Your task to perform on an android device: find snoozed emails in the gmail app Image 0: 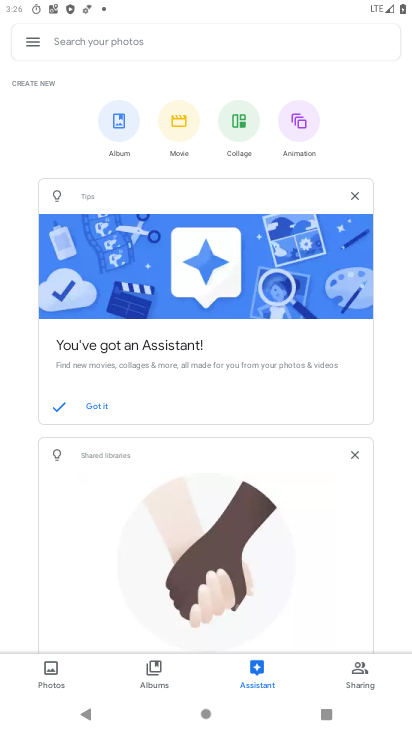
Step 0: press home button
Your task to perform on an android device: find snoozed emails in the gmail app Image 1: 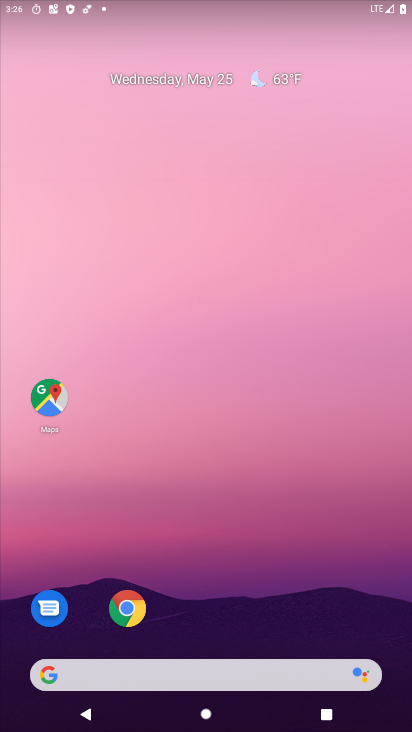
Step 1: drag from (202, 504) to (169, 137)
Your task to perform on an android device: find snoozed emails in the gmail app Image 2: 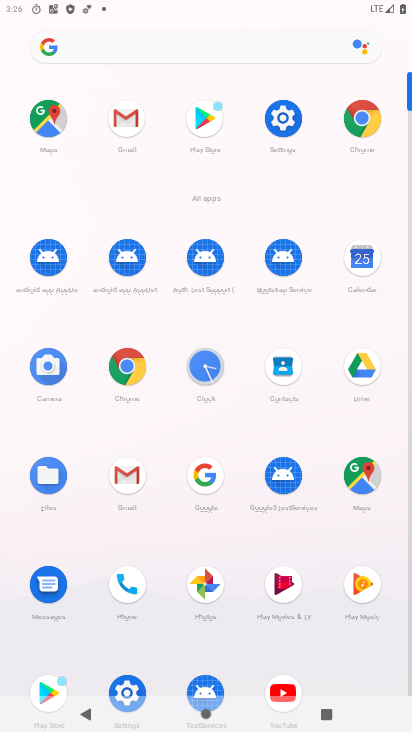
Step 2: click (135, 473)
Your task to perform on an android device: find snoozed emails in the gmail app Image 3: 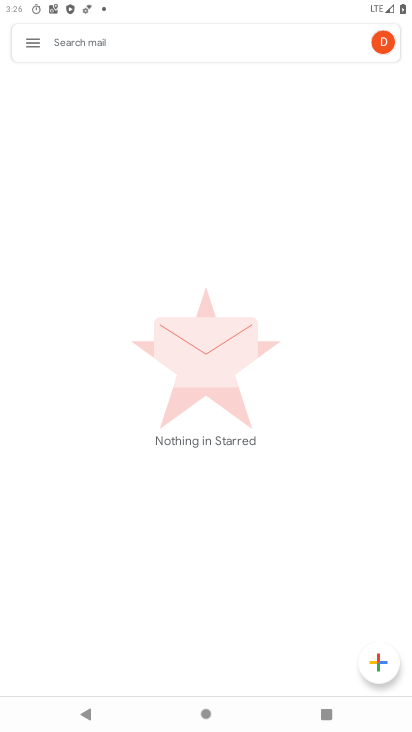
Step 3: click (37, 36)
Your task to perform on an android device: find snoozed emails in the gmail app Image 4: 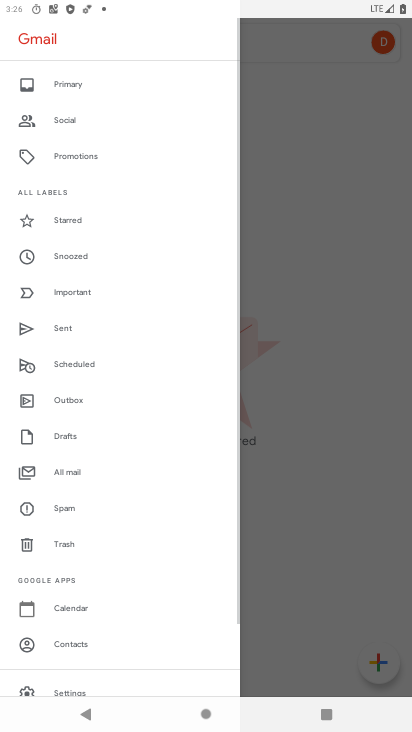
Step 4: click (69, 466)
Your task to perform on an android device: find snoozed emails in the gmail app Image 5: 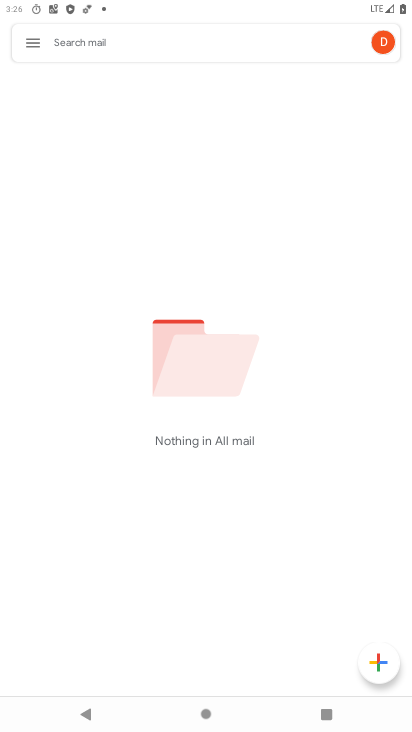
Step 5: task complete